Your task to perform on an android device: open device folders in google photos Image 0: 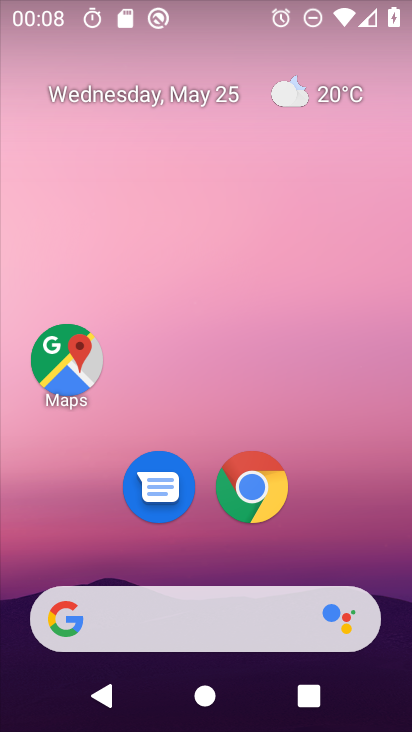
Step 0: drag from (352, 571) to (271, 3)
Your task to perform on an android device: open device folders in google photos Image 1: 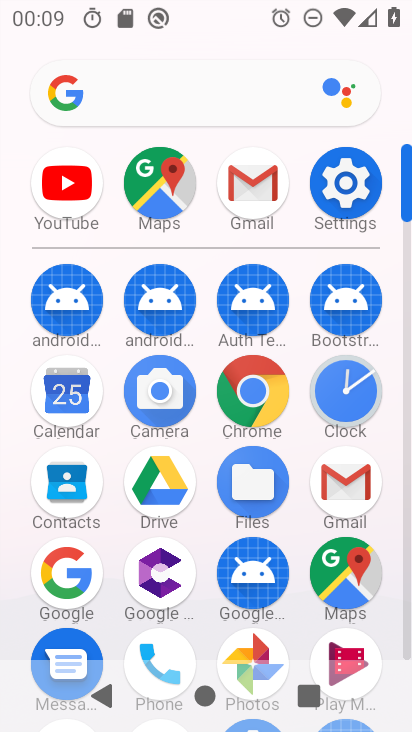
Step 1: click (403, 573)
Your task to perform on an android device: open device folders in google photos Image 2: 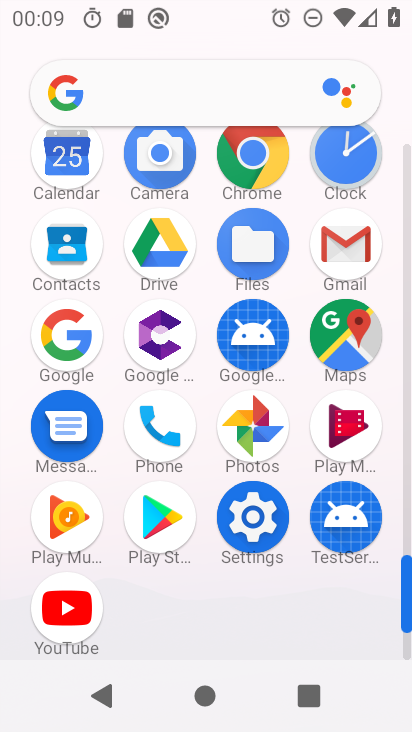
Step 2: click (251, 435)
Your task to perform on an android device: open device folders in google photos Image 3: 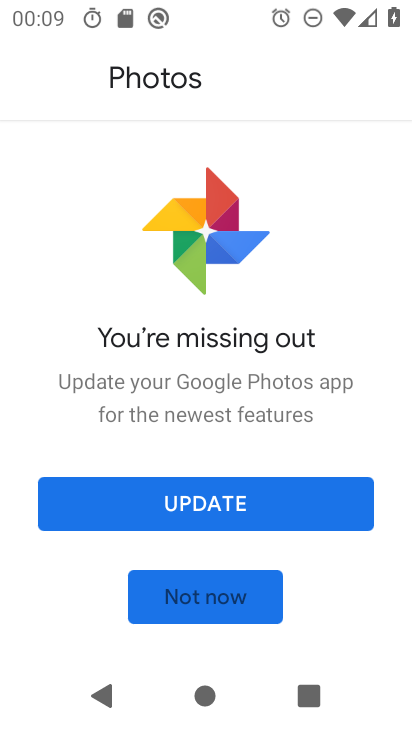
Step 3: click (201, 598)
Your task to perform on an android device: open device folders in google photos Image 4: 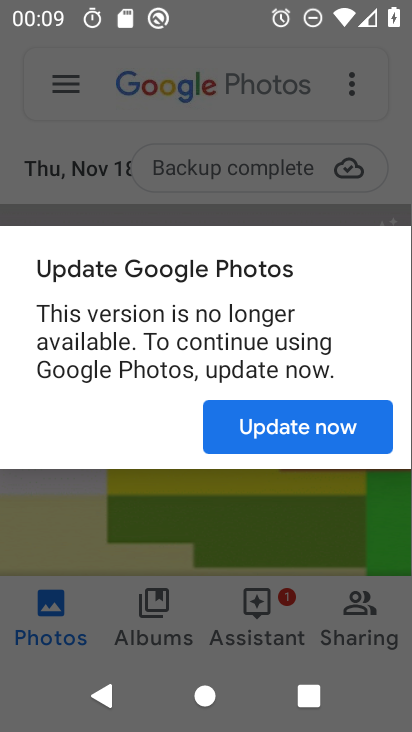
Step 4: click (266, 440)
Your task to perform on an android device: open device folders in google photos Image 5: 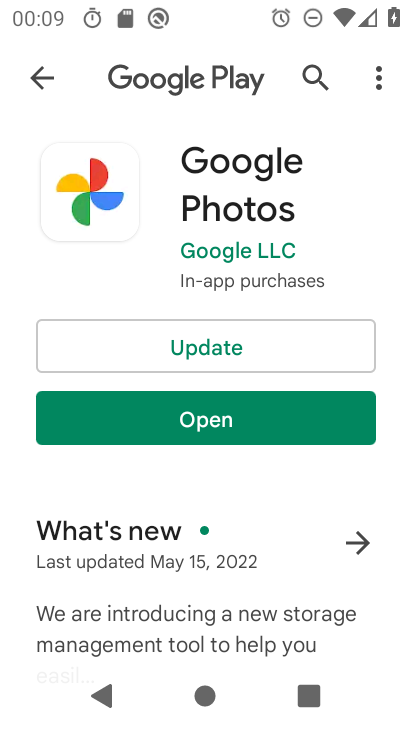
Step 5: click (266, 416)
Your task to perform on an android device: open device folders in google photos Image 6: 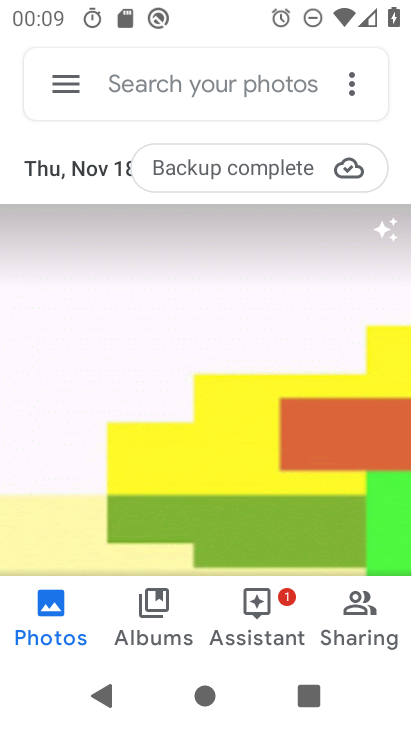
Step 6: click (58, 86)
Your task to perform on an android device: open device folders in google photos Image 7: 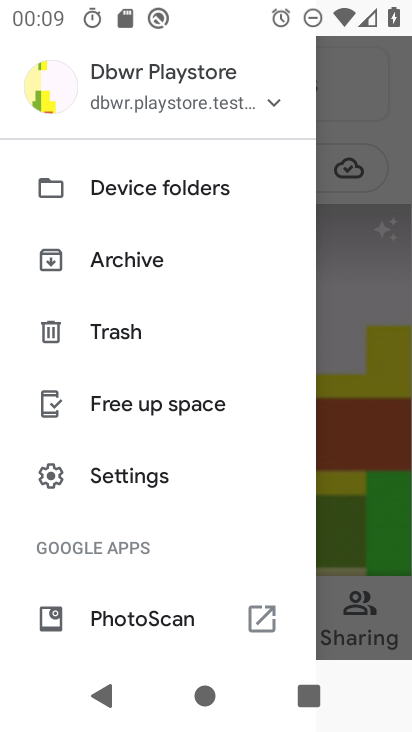
Step 7: click (87, 188)
Your task to perform on an android device: open device folders in google photos Image 8: 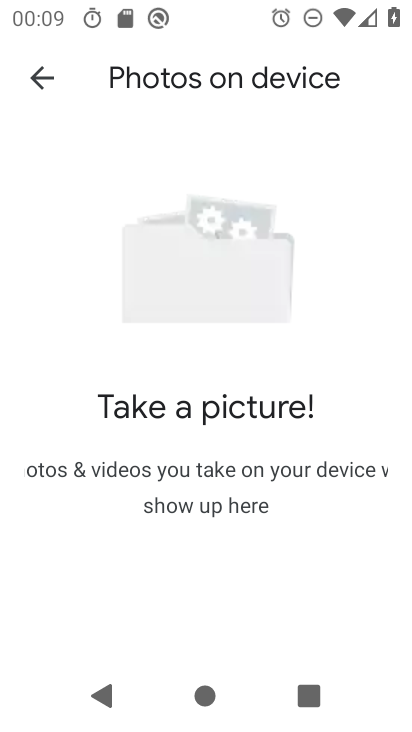
Step 8: task complete